Your task to perform on an android device: turn off notifications in google photos Image 0: 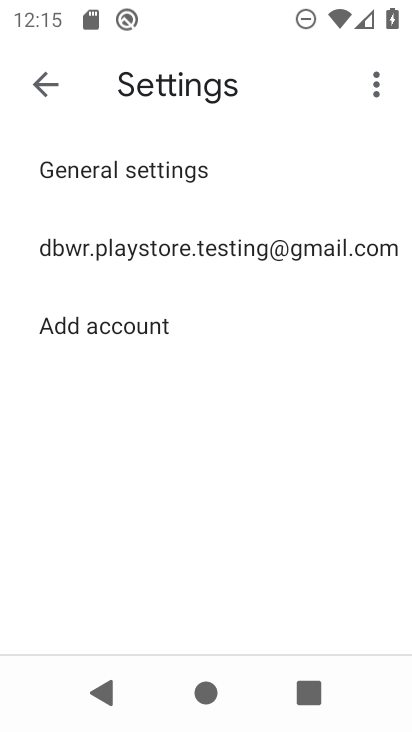
Step 0: press home button
Your task to perform on an android device: turn off notifications in google photos Image 1: 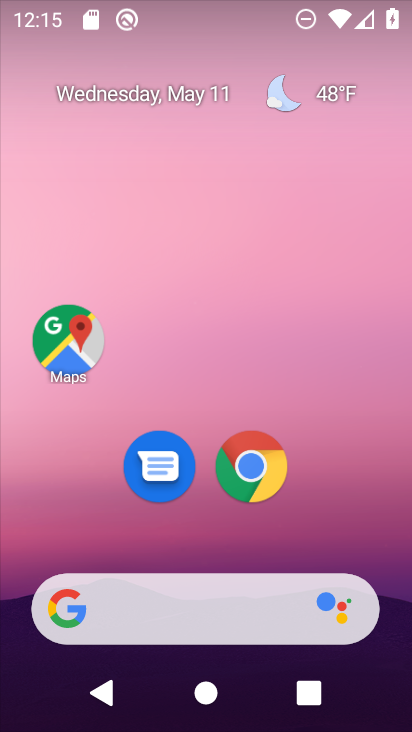
Step 1: drag from (211, 541) to (259, 56)
Your task to perform on an android device: turn off notifications in google photos Image 2: 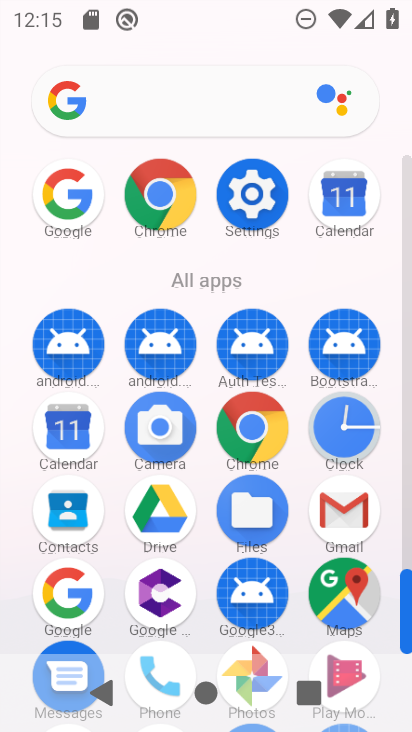
Step 2: drag from (202, 562) to (241, 101)
Your task to perform on an android device: turn off notifications in google photos Image 3: 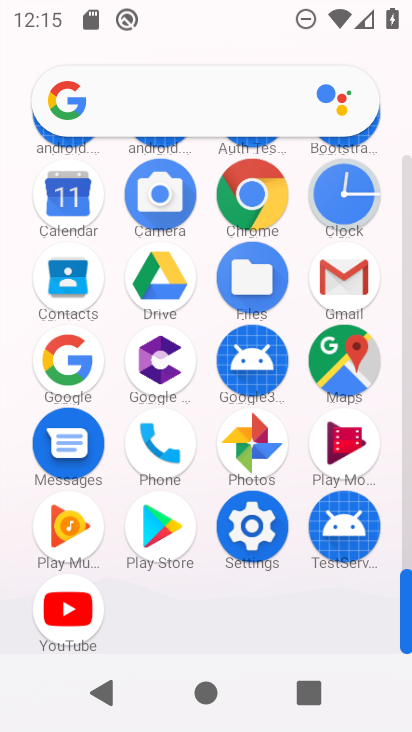
Step 3: click (250, 436)
Your task to perform on an android device: turn off notifications in google photos Image 4: 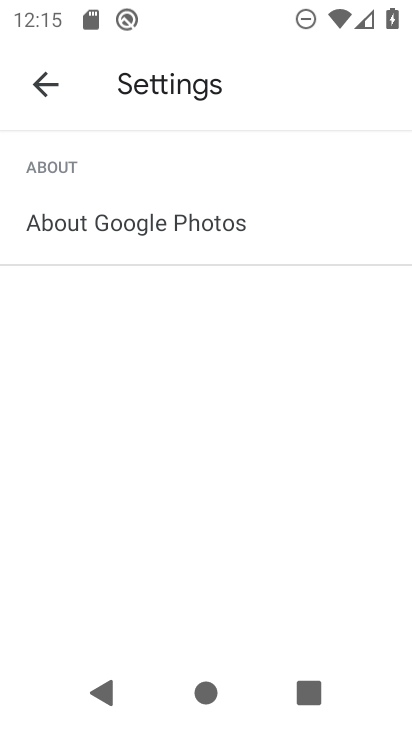
Step 4: click (55, 93)
Your task to perform on an android device: turn off notifications in google photos Image 5: 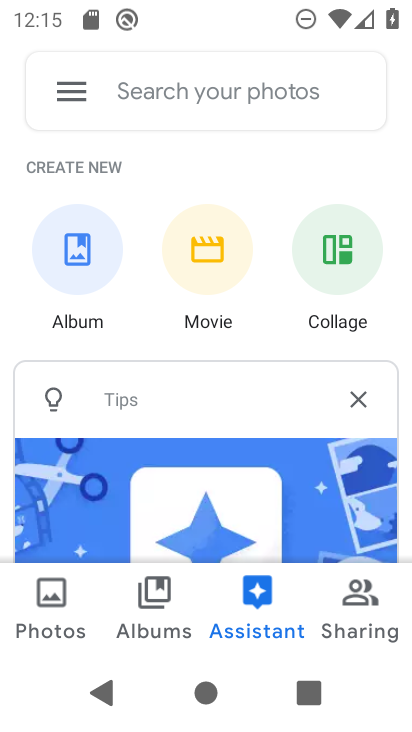
Step 5: click (71, 81)
Your task to perform on an android device: turn off notifications in google photos Image 6: 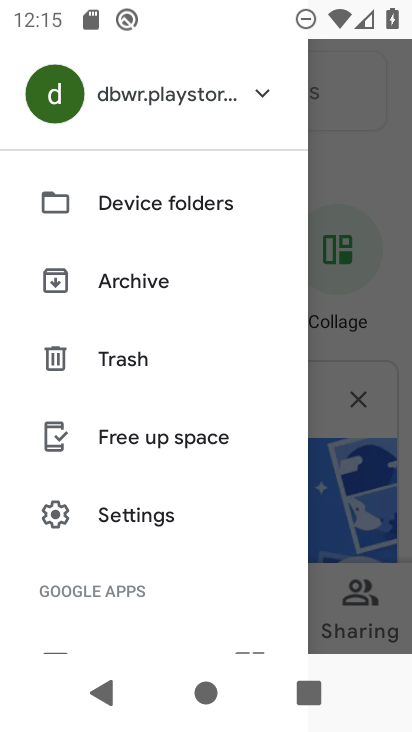
Step 6: click (130, 514)
Your task to perform on an android device: turn off notifications in google photos Image 7: 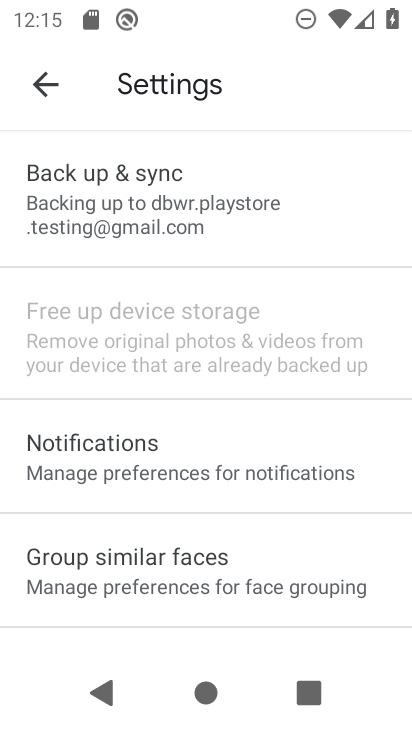
Step 7: click (173, 444)
Your task to perform on an android device: turn off notifications in google photos Image 8: 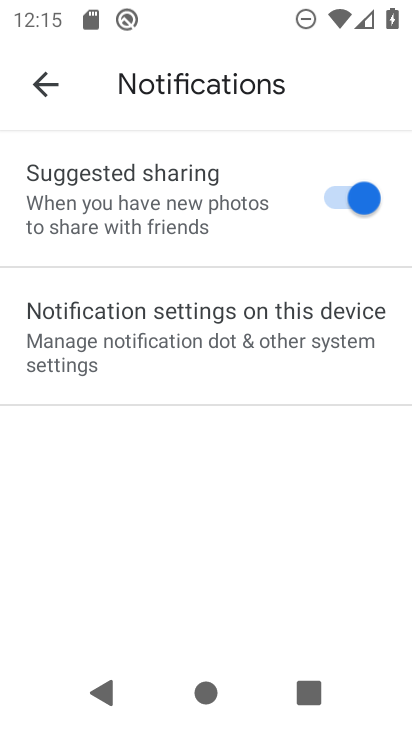
Step 8: click (176, 382)
Your task to perform on an android device: turn off notifications in google photos Image 9: 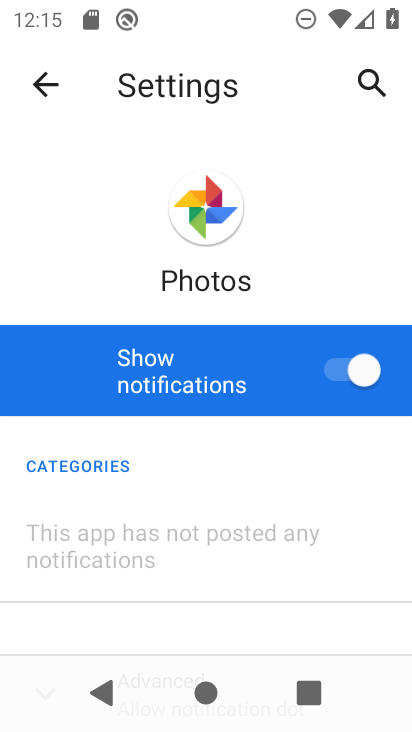
Step 9: click (339, 367)
Your task to perform on an android device: turn off notifications in google photos Image 10: 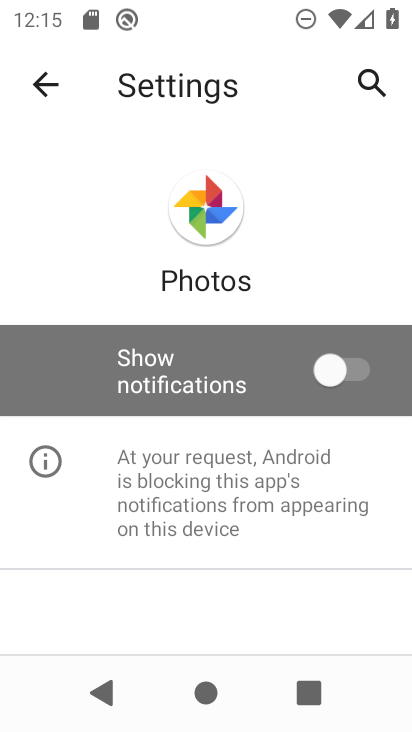
Step 10: task complete